Your task to perform on an android device: change the clock display to analog Image 0: 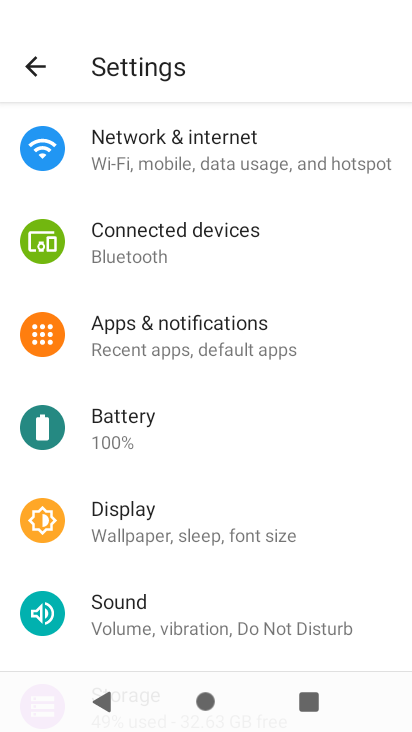
Step 0: press home button
Your task to perform on an android device: change the clock display to analog Image 1: 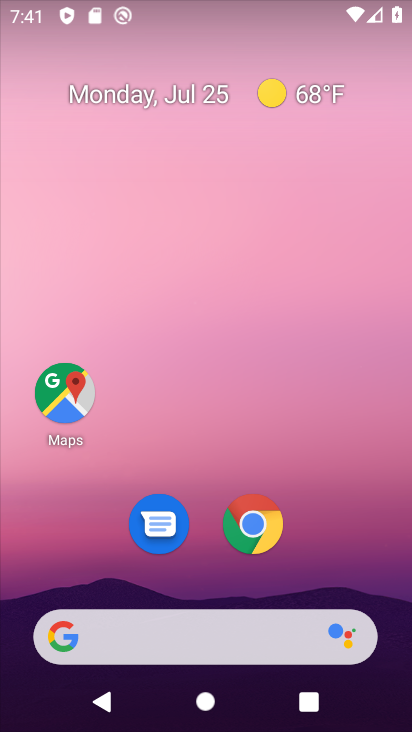
Step 1: drag from (325, 584) to (299, 33)
Your task to perform on an android device: change the clock display to analog Image 2: 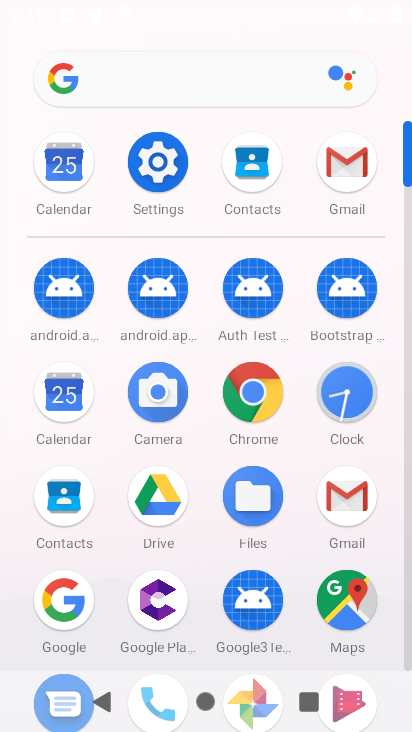
Step 2: click (346, 383)
Your task to perform on an android device: change the clock display to analog Image 3: 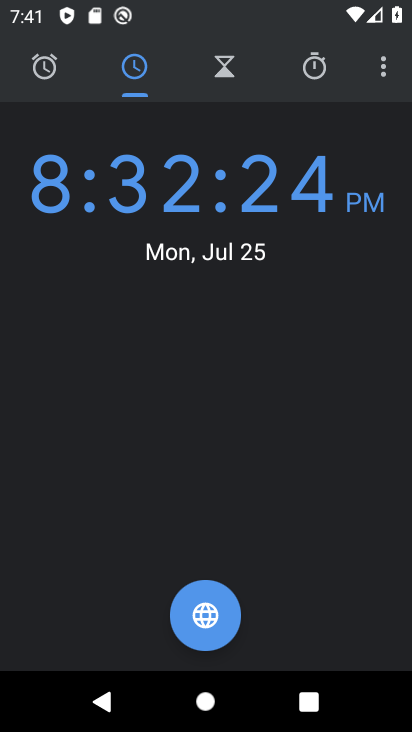
Step 3: click (382, 69)
Your task to perform on an android device: change the clock display to analog Image 4: 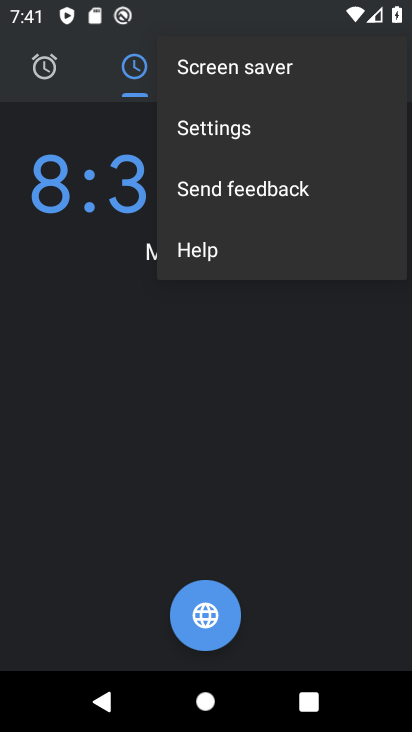
Step 4: click (253, 133)
Your task to perform on an android device: change the clock display to analog Image 5: 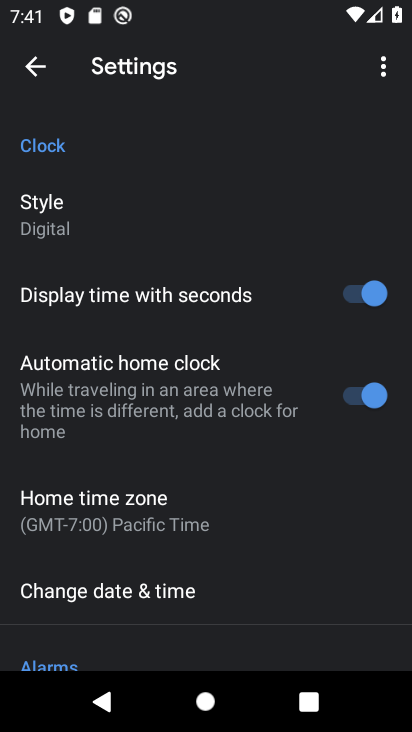
Step 5: click (81, 218)
Your task to perform on an android device: change the clock display to analog Image 6: 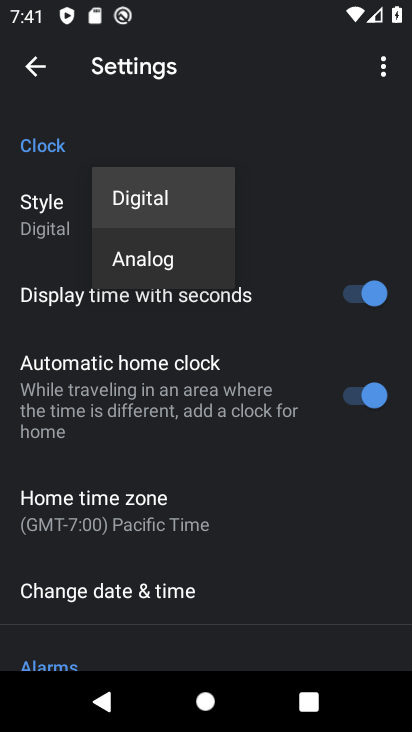
Step 6: click (127, 257)
Your task to perform on an android device: change the clock display to analog Image 7: 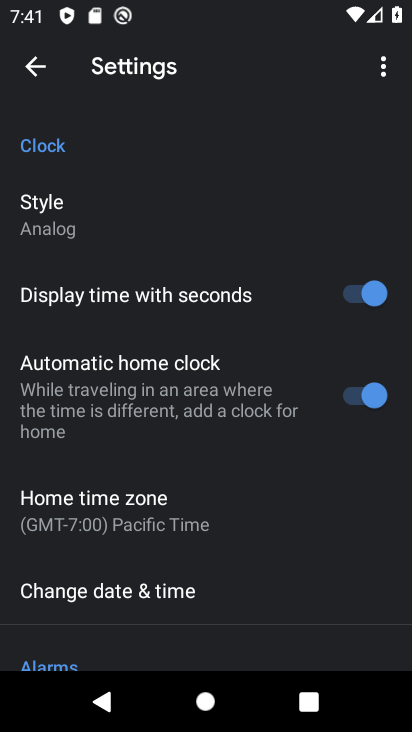
Step 7: click (33, 55)
Your task to perform on an android device: change the clock display to analog Image 8: 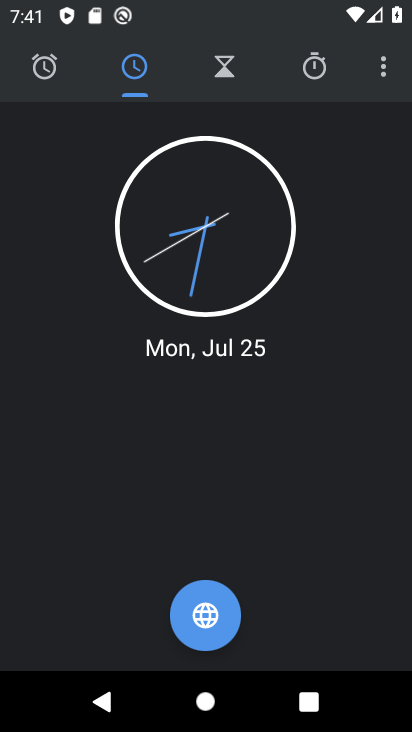
Step 8: task complete